Your task to perform on an android device: Go to calendar. Show me events next week Image 0: 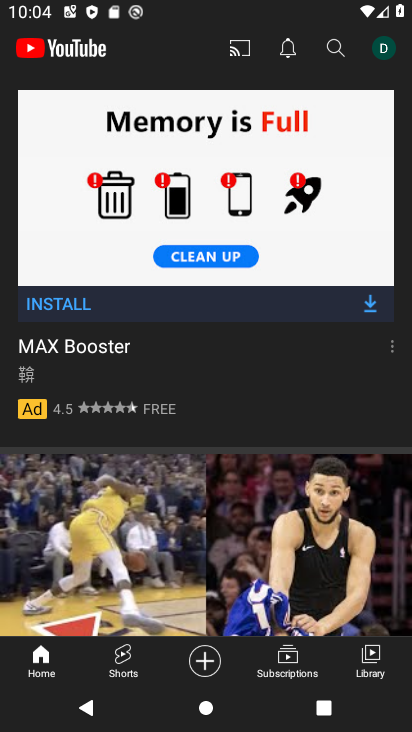
Step 0: press home button
Your task to perform on an android device: Go to calendar. Show me events next week Image 1: 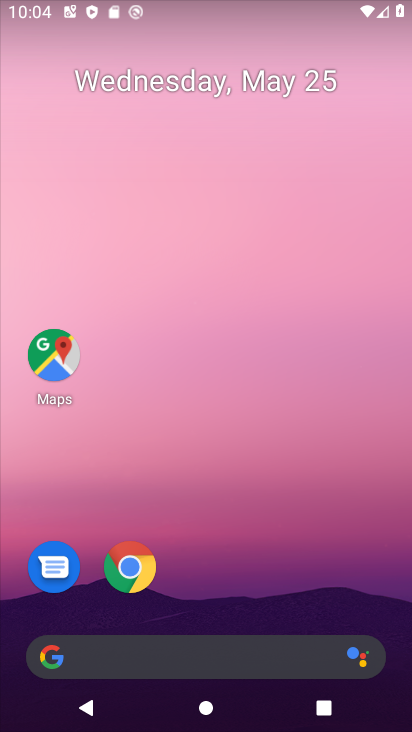
Step 1: drag from (240, 561) to (201, 47)
Your task to perform on an android device: Go to calendar. Show me events next week Image 2: 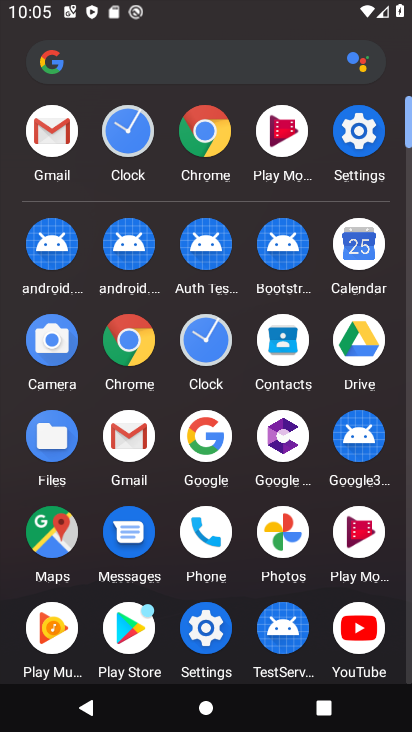
Step 2: click (351, 236)
Your task to perform on an android device: Go to calendar. Show me events next week Image 3: 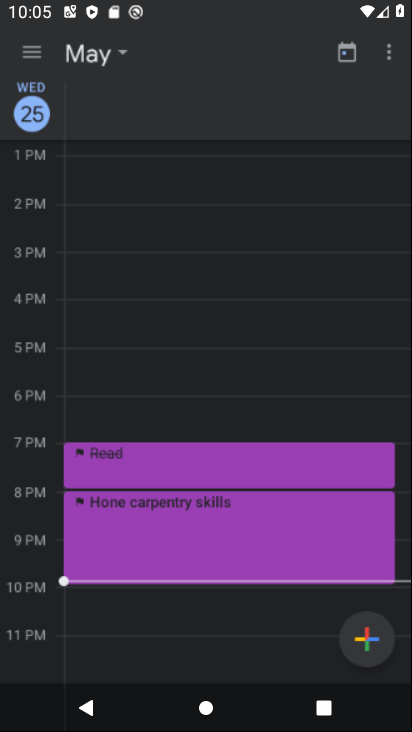
Step 3: task complete